Your task to perform on an android device: delete location history Image 0: 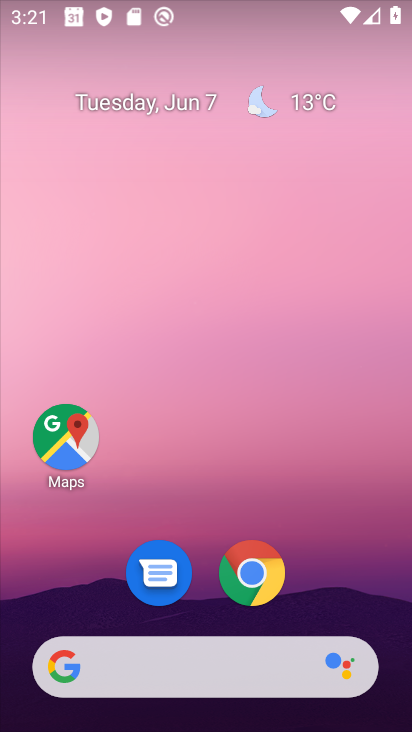
Step 0: click (411, 600)
Your task to perform on an android device: delete location history Image 1: 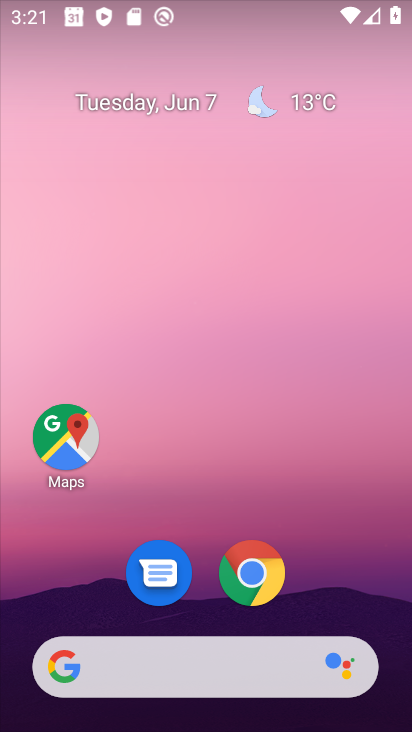
Step 1: drag from (381, 619) to (223, 207)
Your task to perform on an android device: delete location history Image 2: 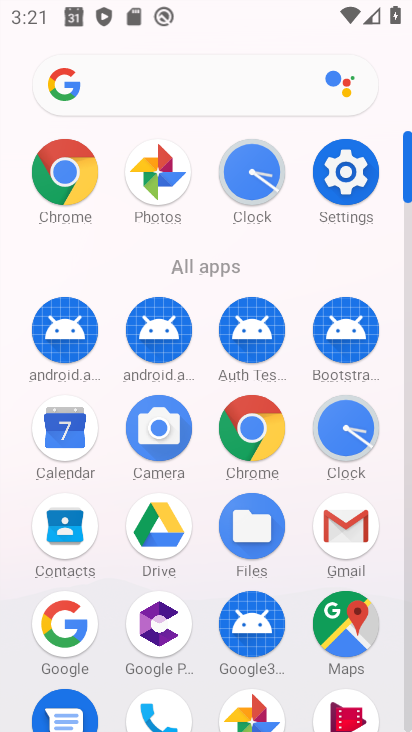
Step 2: click (364, 622)
Your task to perform on an android device: delete location history Image 3: 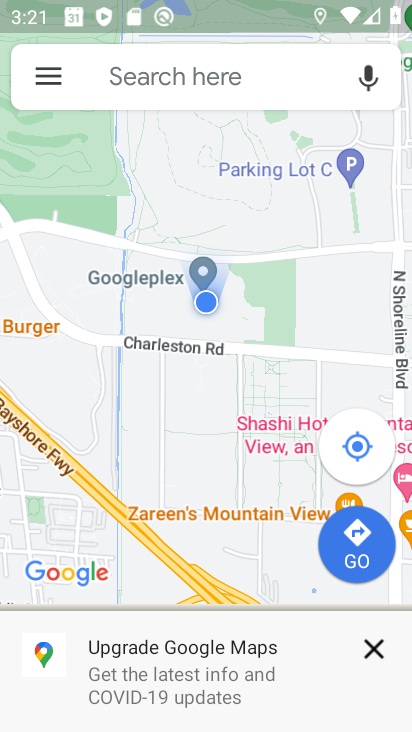
Step 3: click (57, 79)
Your task to perform on an android device: delete location history Image 4: 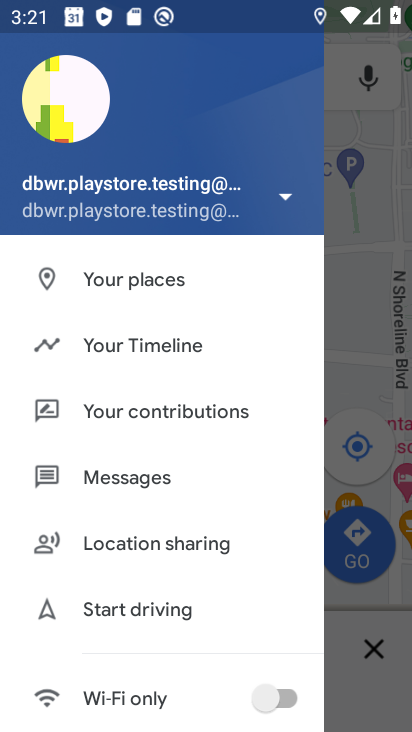
Step 4: click (147, 343)
Your task to perform on an android device: delete location history Image 5: 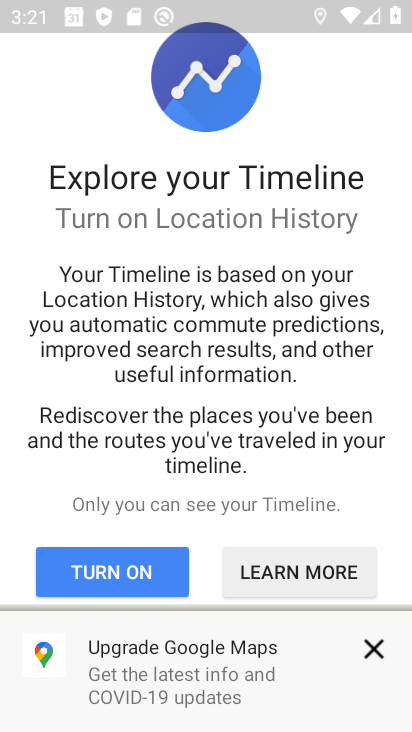
Step 5: drag from (218, 491) to (182, 260)
Your task to perform on an android device: delete location history Image 6: 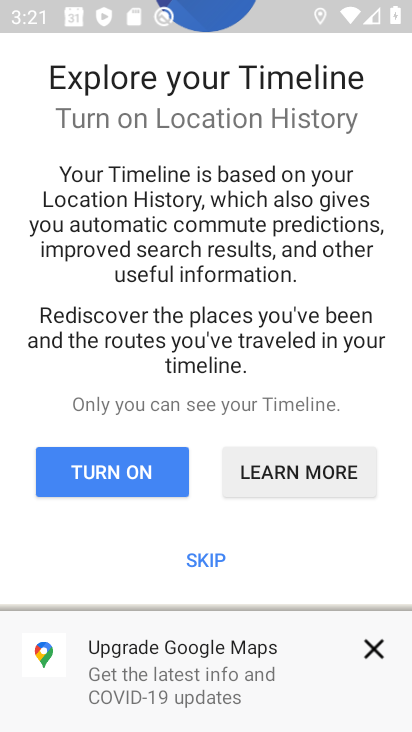
Step 6: click (384, 656)
Your task to perform on an android device: delete location history Image 7: 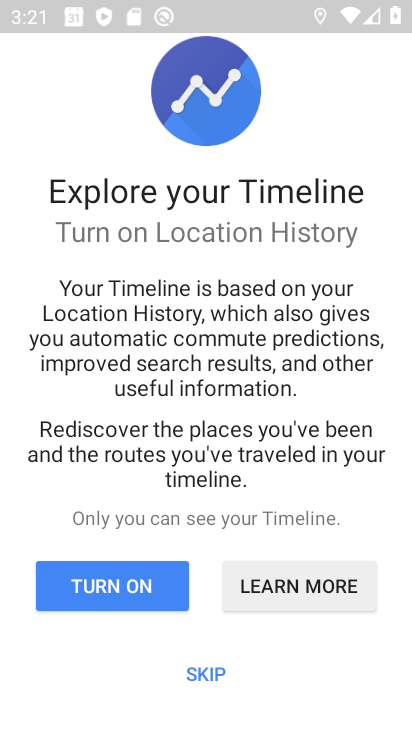
Step 7: click (221, 670)
Your task to perform on an android device: delete location history Image 8: 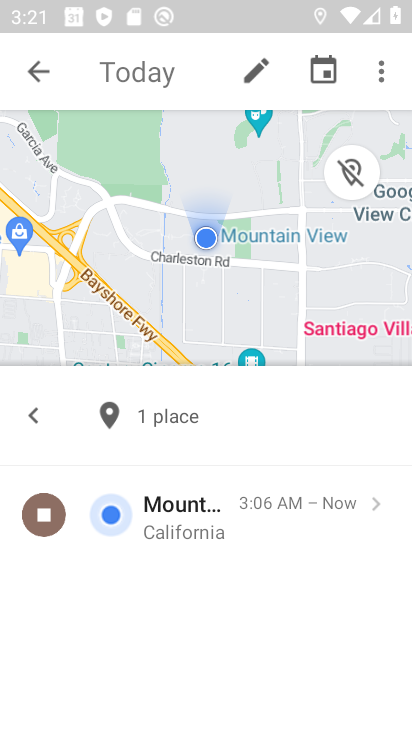
Step 8: click (394, 67)
Your task to perform on an android device: delete location history Image 9: 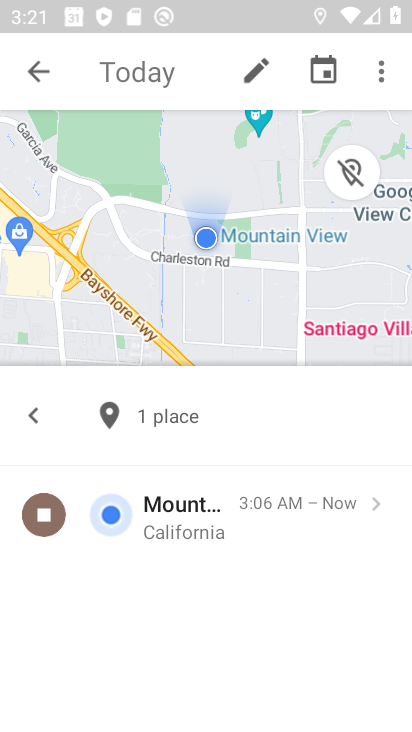
Step 9: click (392, 70)
Your task to perform on an android device: delete location history Image 10: 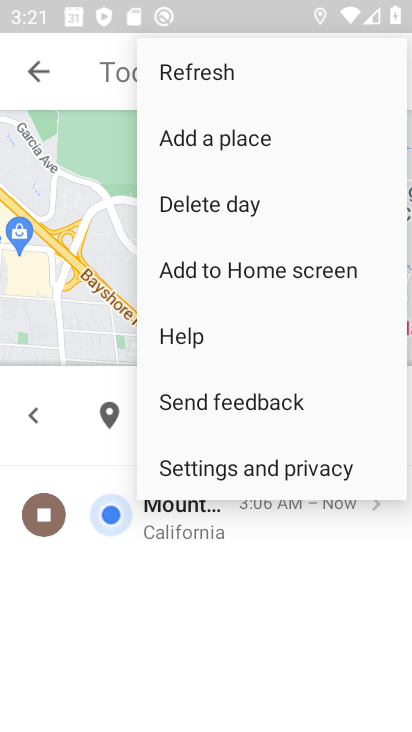
Step 10: click (344, 473)
Your task to perform on an android device: delete location history Image 11: 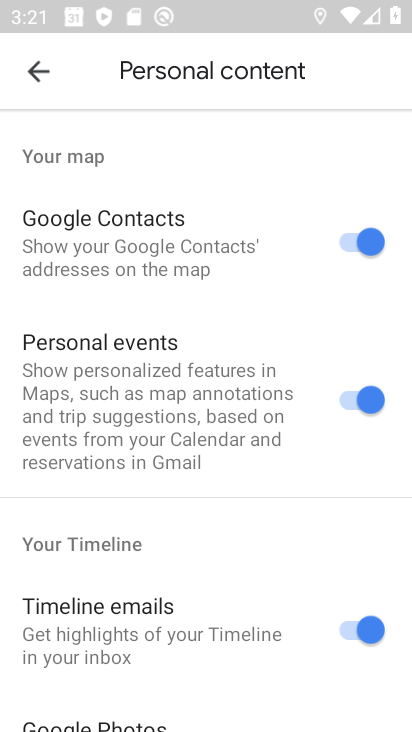
Step 11: drag from (256, 615) to (175, 21)
Your task to perform on an android device: delete location history Image 12: 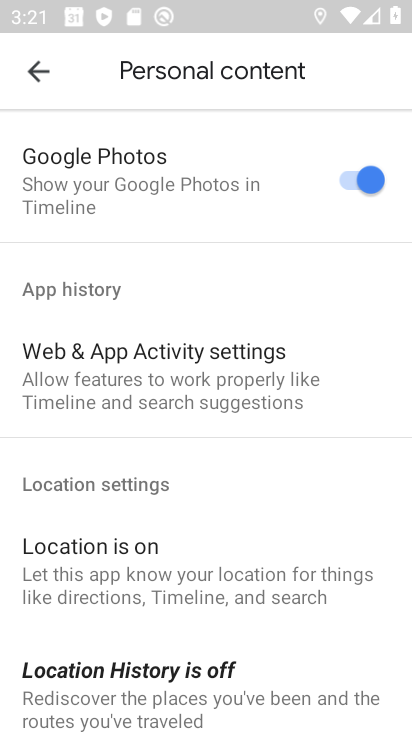
Step 12: drag from (189, 565) to (140, 170)
Your task to perform on an android device: delete location history Image 13: 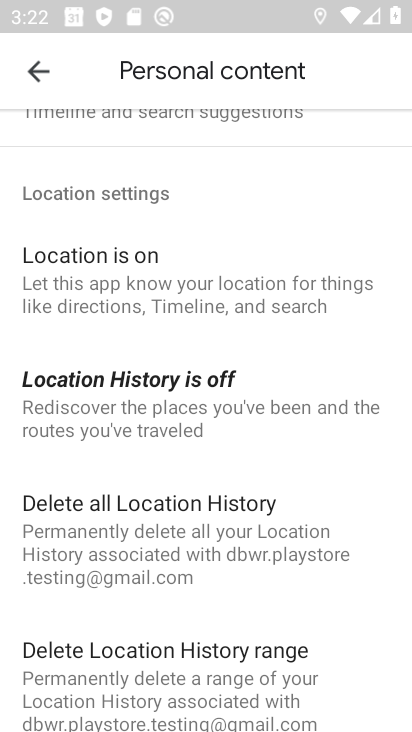
Step 13: click (215, 527)
Your task to perform on an android device: delete location history Image 14: 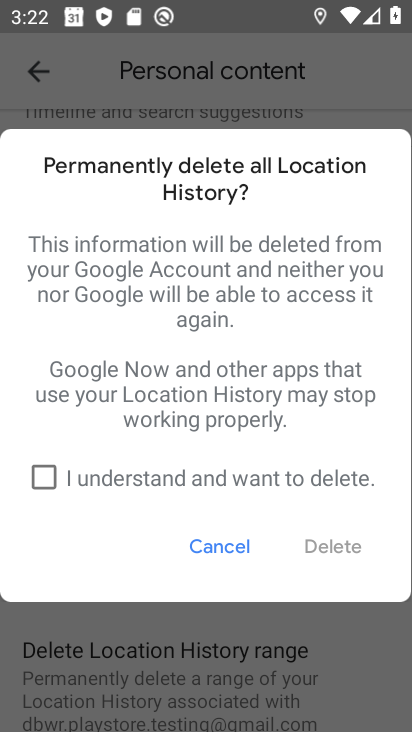
Step 14: click (312, 471)
Your task to perform on an android device: delete location history Image 15: 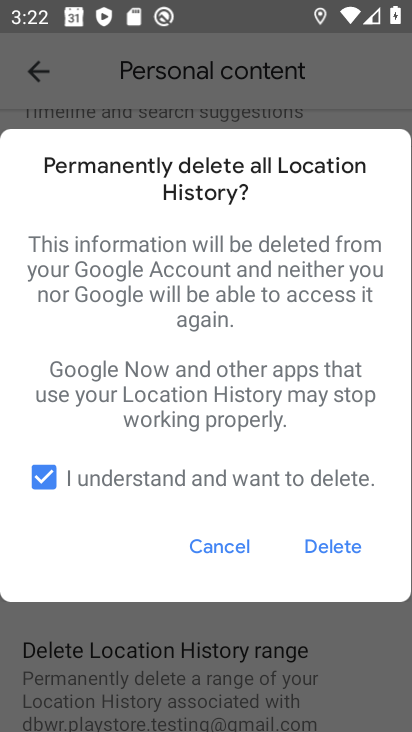
Step 15: click (353, 543)
Your task to perform on an android device: delete location history Image 16: 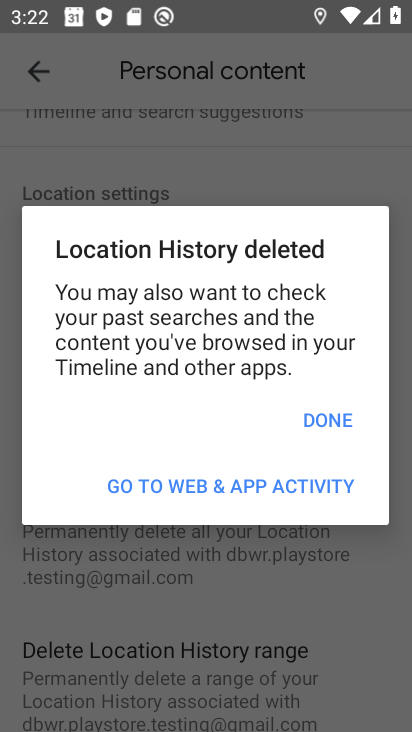
Step 16: click (307, 432)
Your task to perform on an android device: delete location history Image 17: 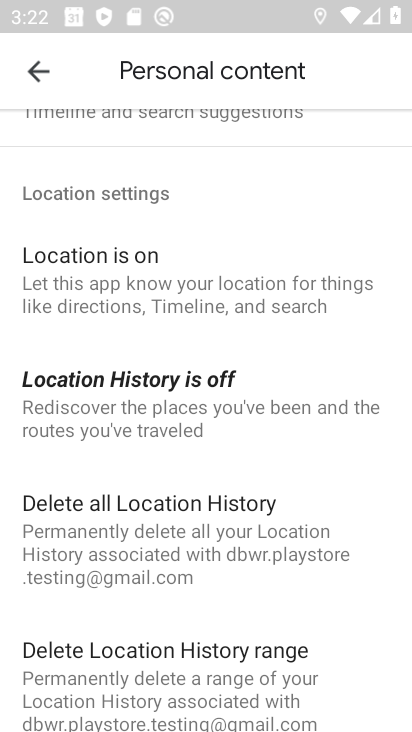
Step 17: task complete